Your task to perform on an android device: Show me productivity apps on the Play Store Image 0: 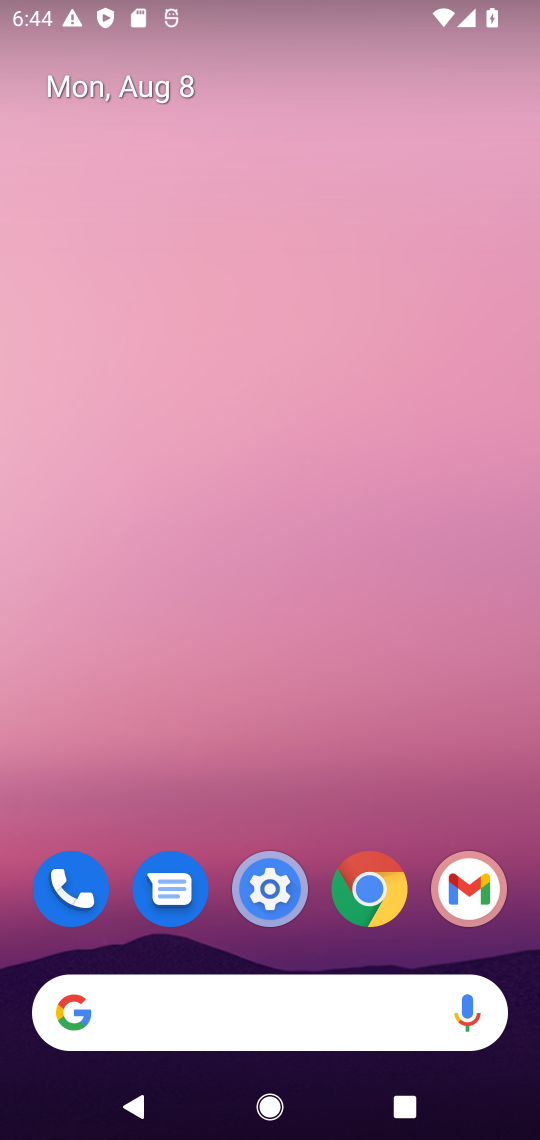
Step 0: drag from (483, 1004) to (461, 355)
Your task to perform on an android device: Show me productivity apps on the Play Store Image 1: 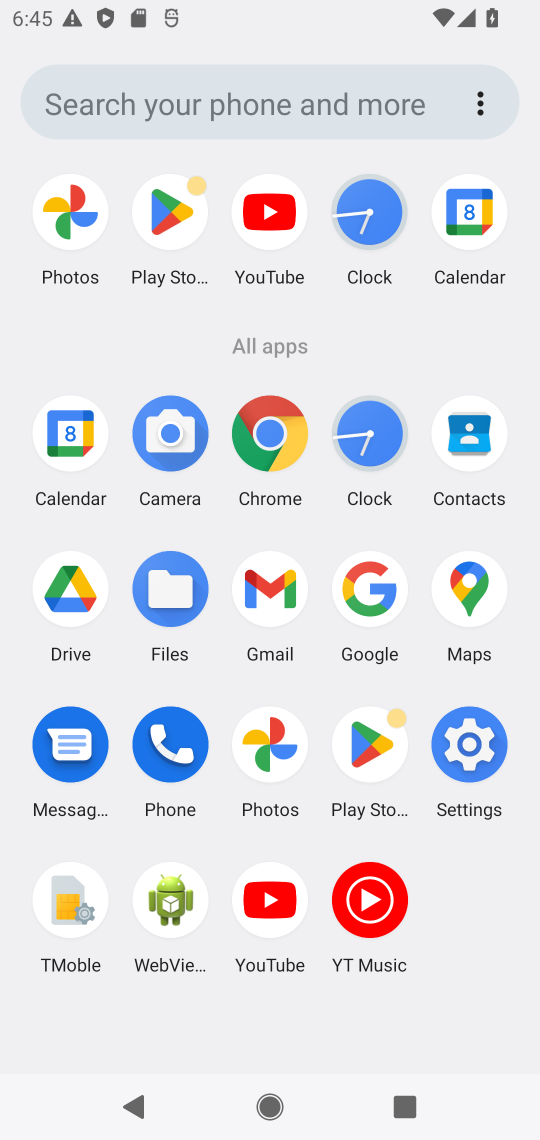
Step 1: click (367, 749)
Your task to perform on an android device: Show me productivity apps on the Play Store Image 2: 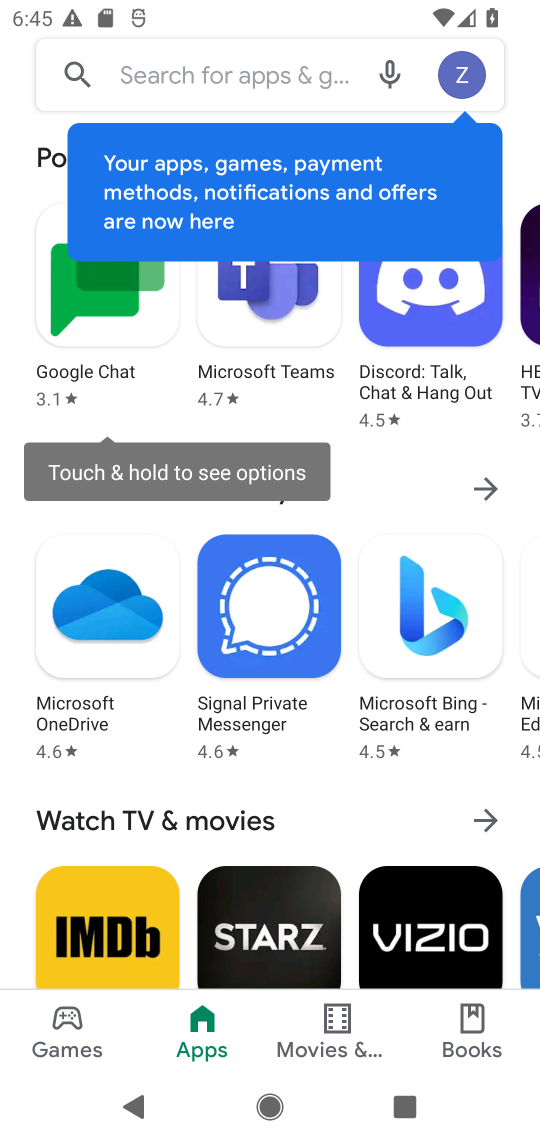
Step 2: click (236, 73)
Your task to perform on an android device: Show me productivity apps on the Play Store Image 3: 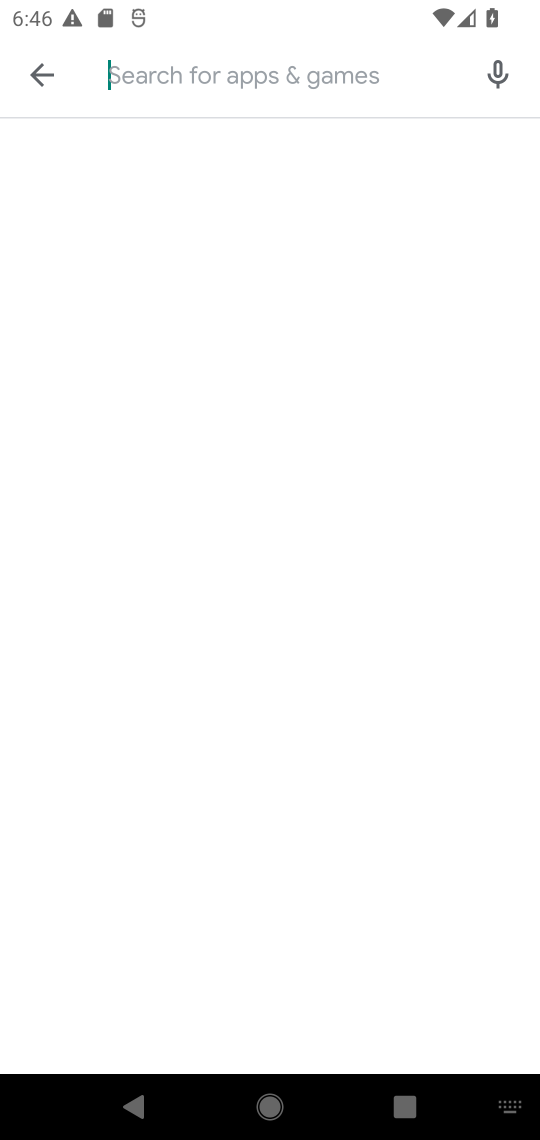
Step 3: type "productivity apps on the Play Store"
Your task to perform on an android device: Show me productivity apps on the Play Store Image 4: 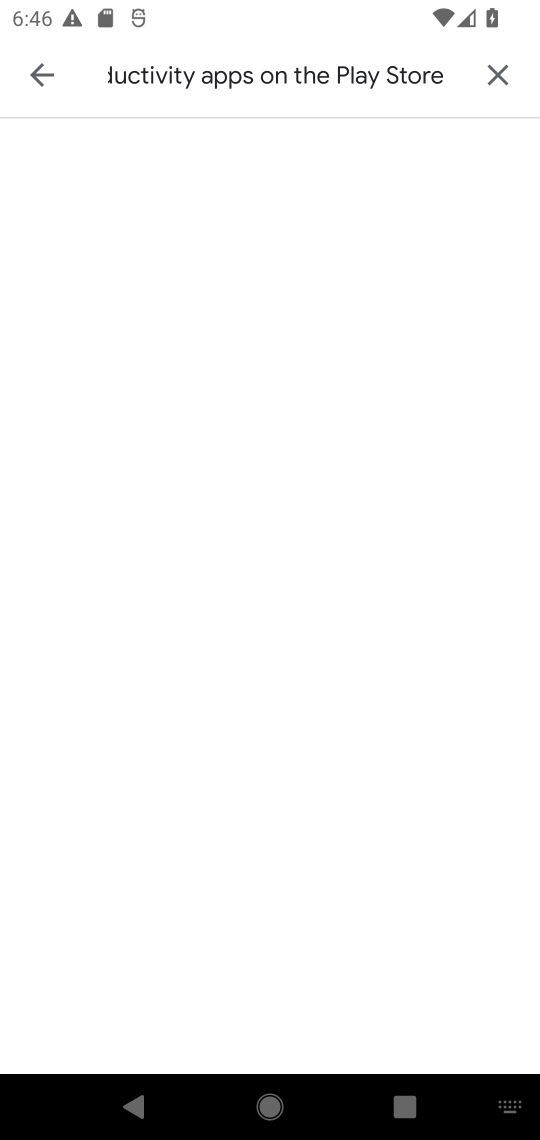
Step 4: task complete